Your task to perform on an android device: turn off notifications in google photos Image 0: 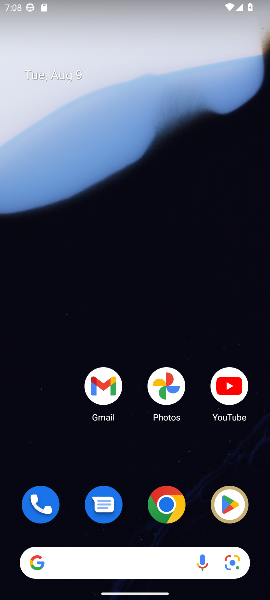
Step 0: drag from (131, 454) to (102, 84)
Your task to perform on an android device: turn off notifications in google photos Image 1: 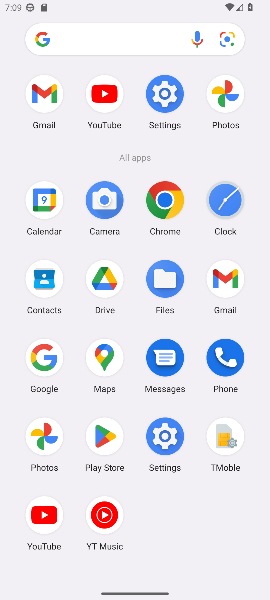
Step 1: click (51, 460)
Your task to perform on an android device: turn off notifications in google photos Image 2: 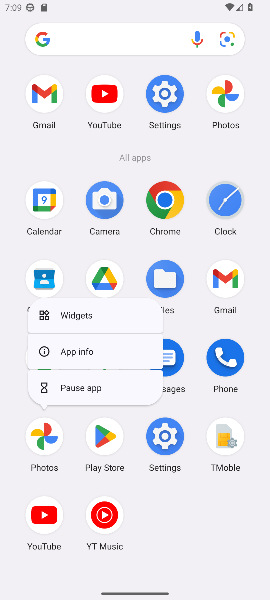
Step 2: click (70, 357)
Your task to perform on an android device: turn off notifications in google photos Image 3: 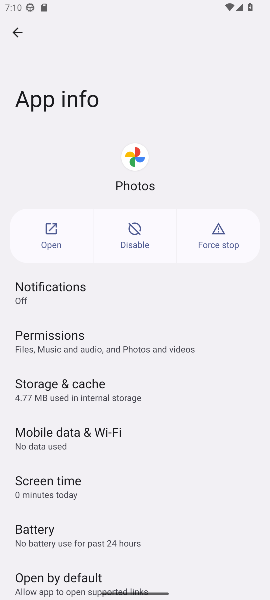
Step 3: task complete